Your task to perform on an android device: Search for Italian restaurants on Maps Image 0: 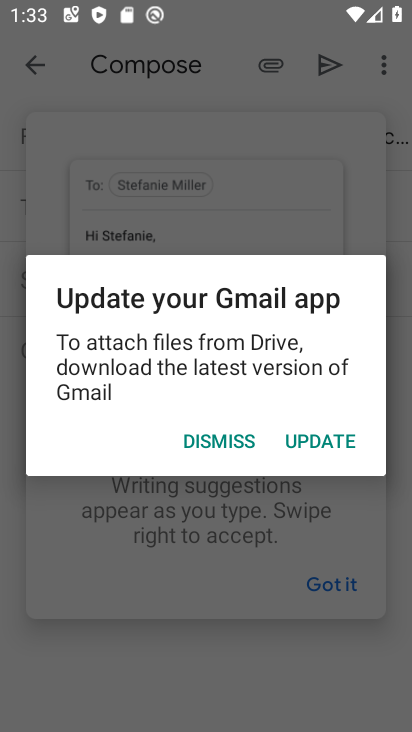
Step 0: press back button
Your task to perform on an android device: Search for Italian restaurants on Maps Image 1: 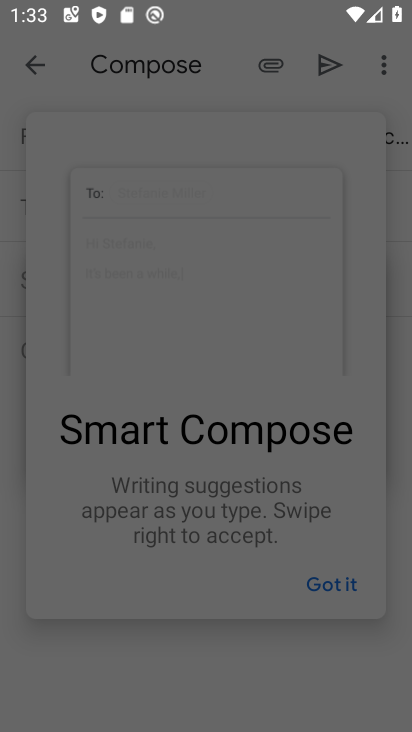
Step 1: press home button
Your task to perform on an android device: Search for Italian restaurants on Maps Image 2: 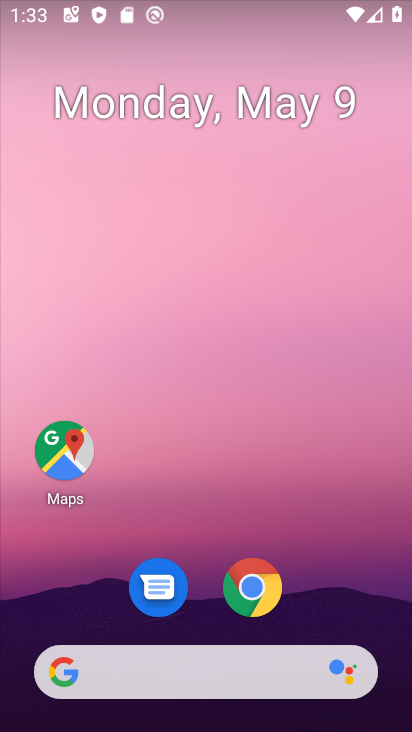
Step 2: click (54, 457)
Your task to perform on an android device: Search for Italian restaurants on Maps Image 3: 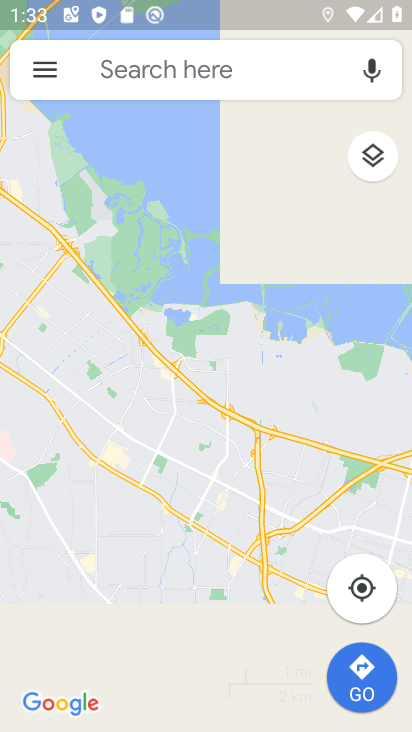
Step 3: click (234, 62)
Your task to perform on an android device: Search for Italian restaurants on Maps Image 4: 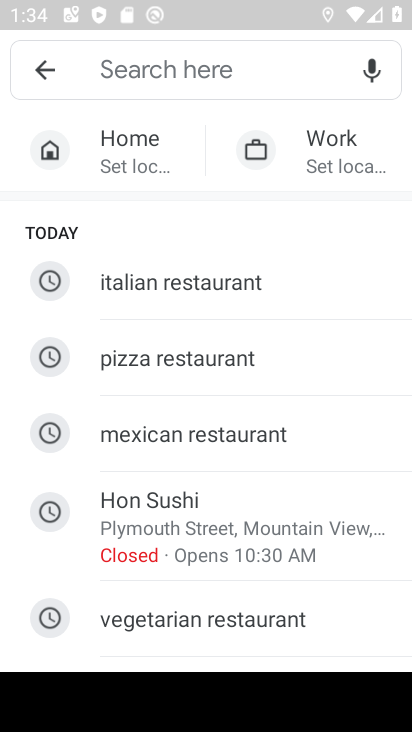
Step 4: type "Italian restaurants "
Your task to perform on an android device: Search for Italian restaurants on Maps Image 5: 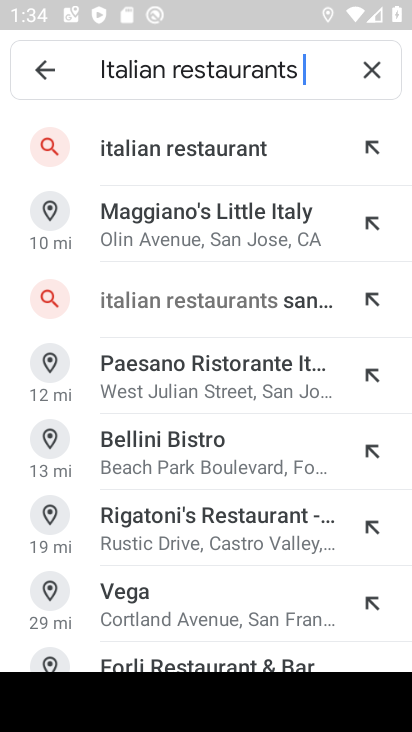
Step 5: click (259, 167)
Your task to perform on an android device: Search for Italian restaurants on Maps Image 6: 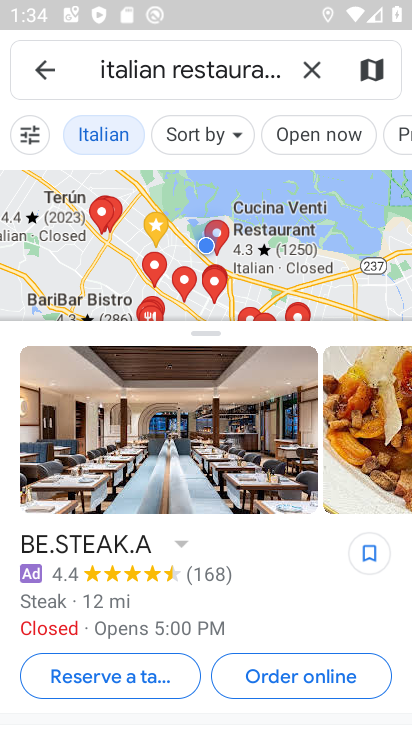
Step 6: task complete